Your task to perform on an android device: Is it going to rain tomorrow? Image 0: 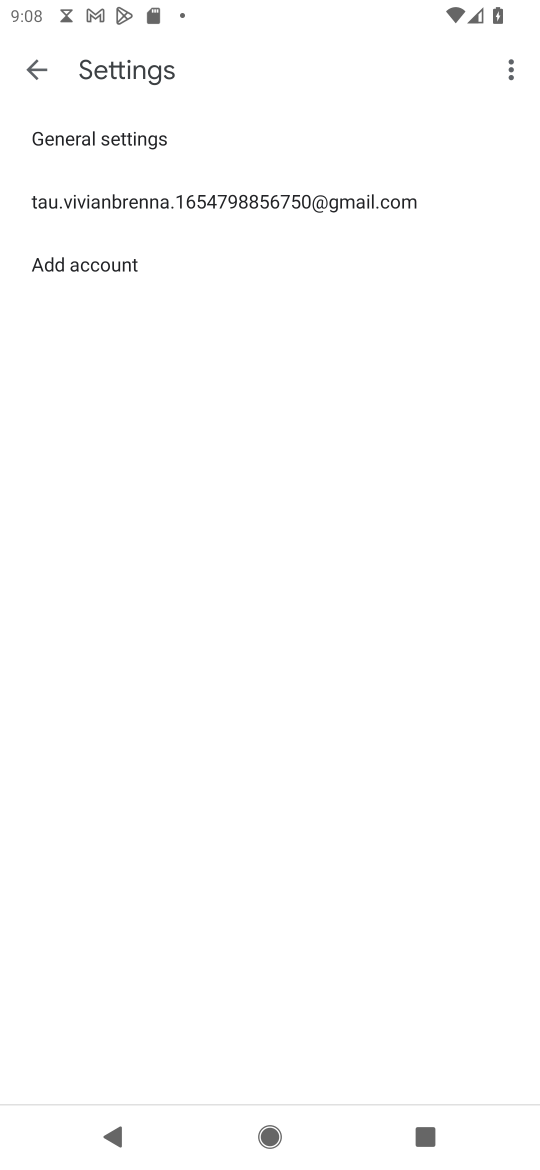
Step 0: press home button
Your task to perform on an android device: Is it going to rain tomorrow? Image 1: 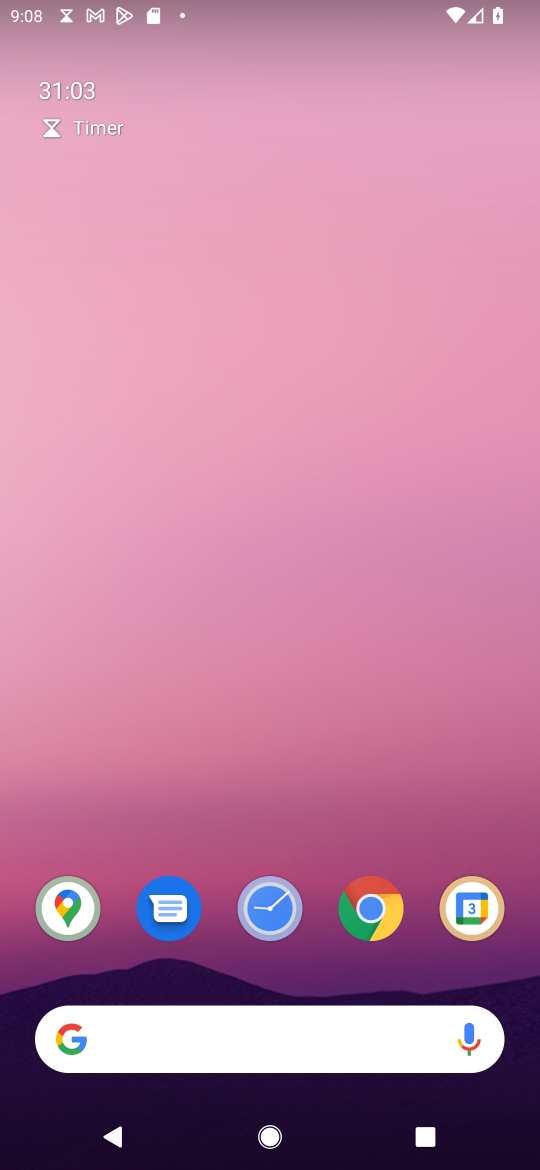
Step 1: drag from (283, 1014) to (222, 0)
Your task to perform on an android device: Is it going to rain tomorrow? Image 2: 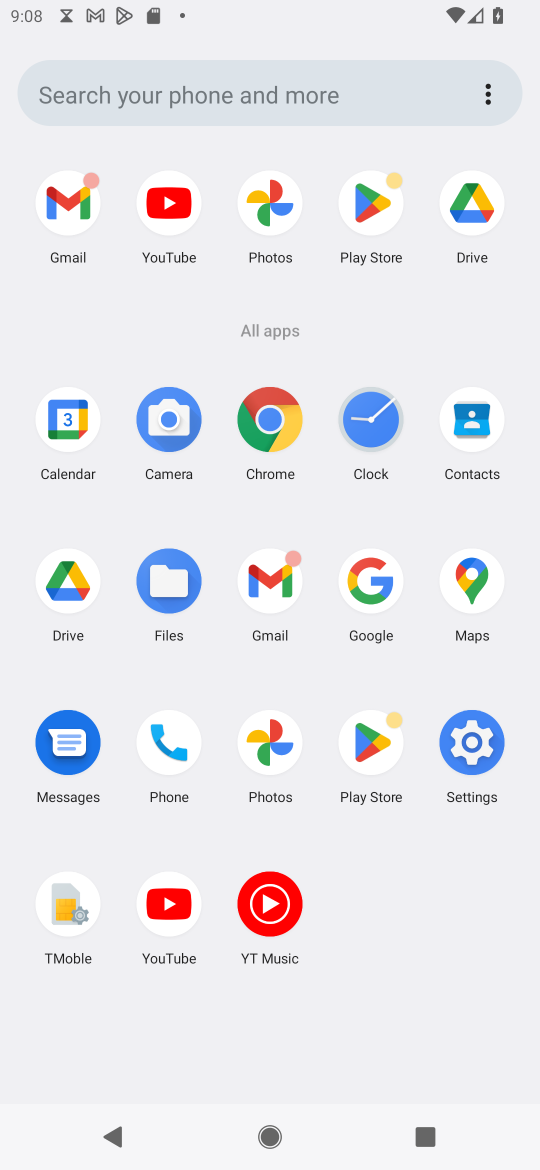
Step 2: click (255, 404)
Your task to perform on an android device: Is it going to rain tomorrow? Image 3: 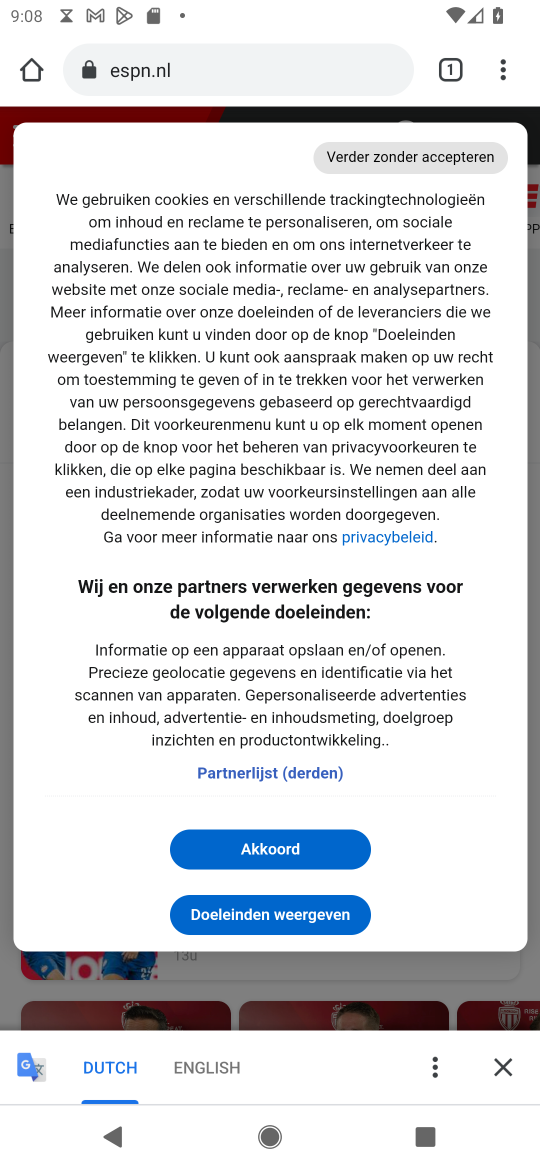
Step 3: click (256, 47)
Your task to perform on an android device: Is it going to rain tomorrow? Image 4: 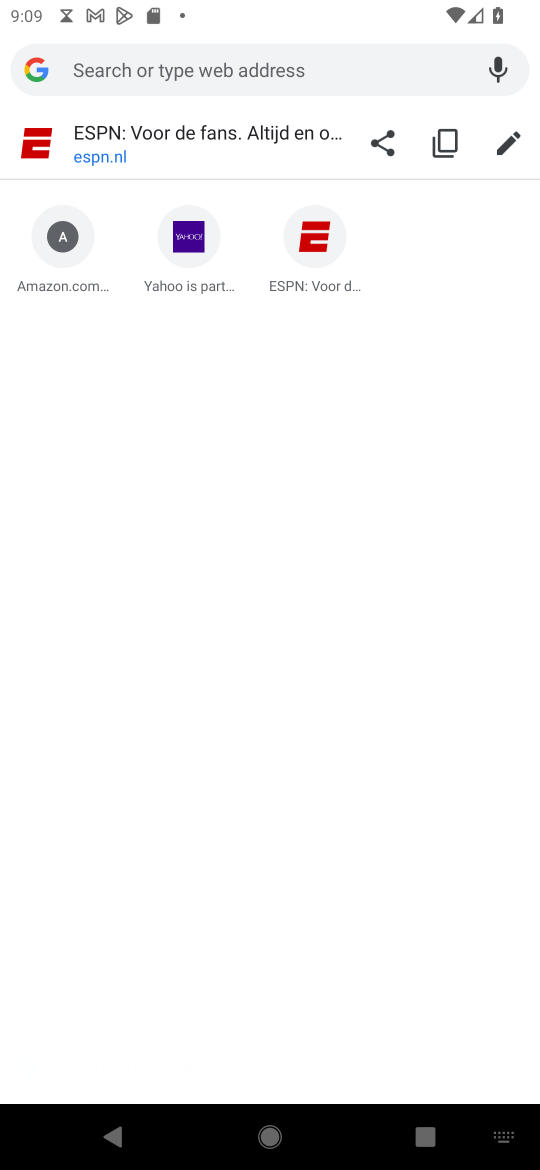
Step 4: type "weather tomorrwo"
Your task to perform on an android device: Is it going to rain tomorrow? Image 5: 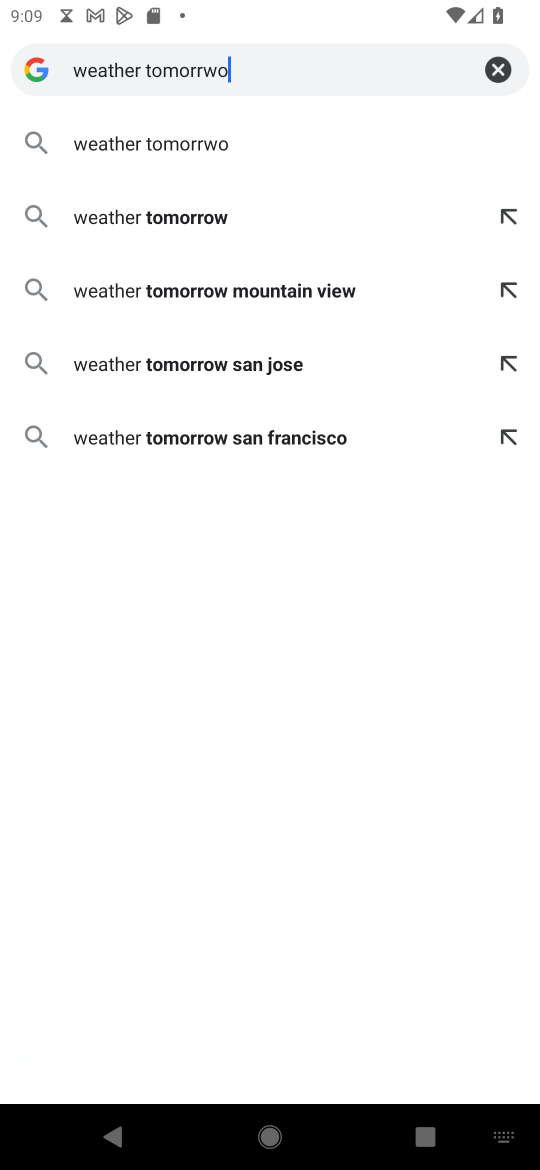
Step 5: type "w"
Your task to perform on an android device: Is it going to rain tomorrow? Image 6: 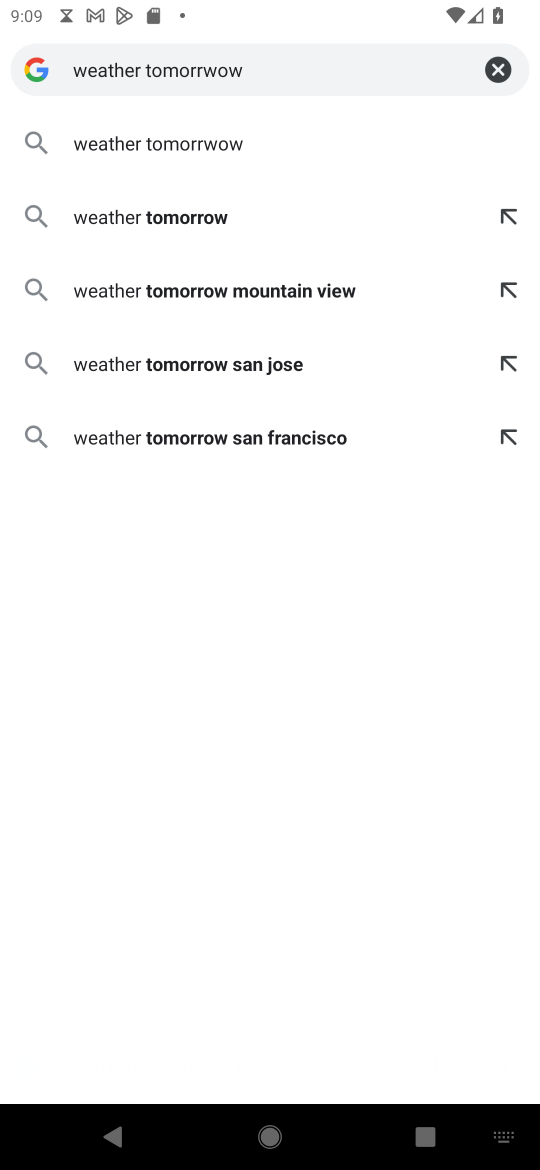
Step 6: click (229, 145)
Your task to perform on an android device: Is it going to rain tomorrow? Image 7: 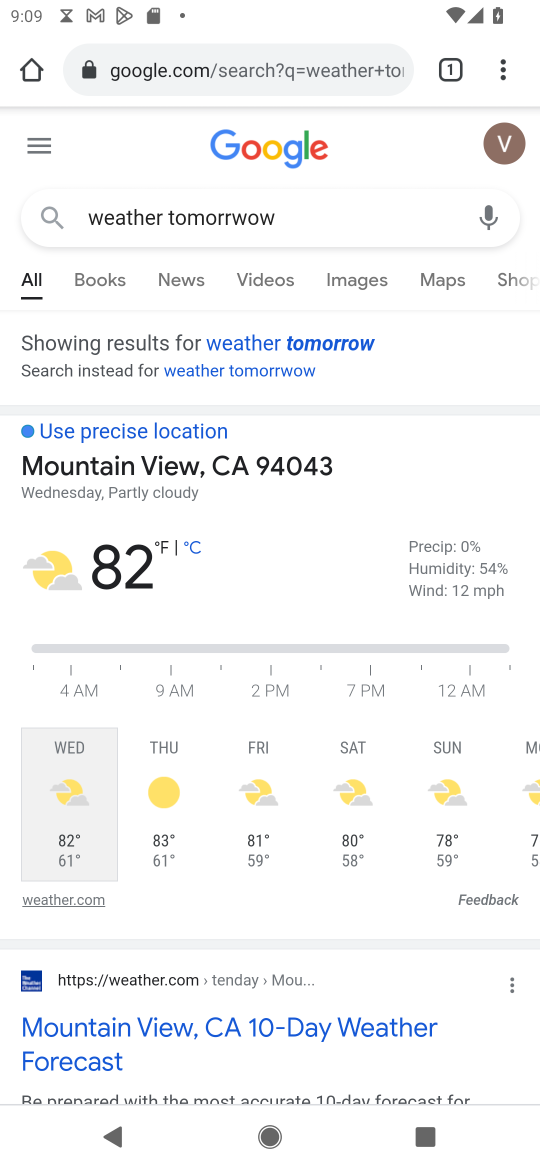
Step 7: task complete